Your task to perform on an android device: Open Youtube and go to the subscriptions tab Image 0: 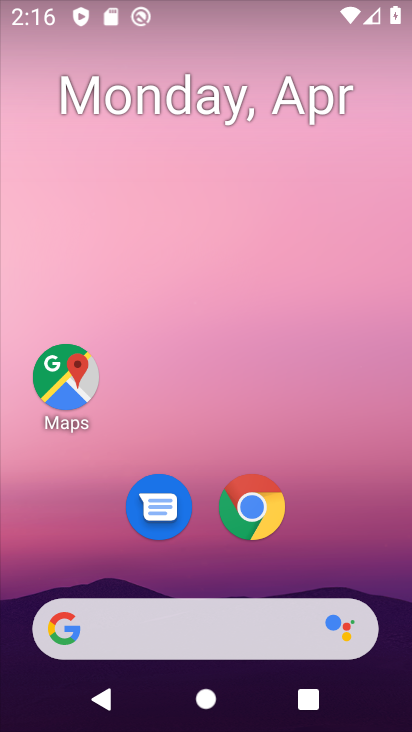
Step 0: drag from (391, 634) to (328, 120)
Your task to perform on an android device: Open Youtube and go to the subscriptions tab Image 1: 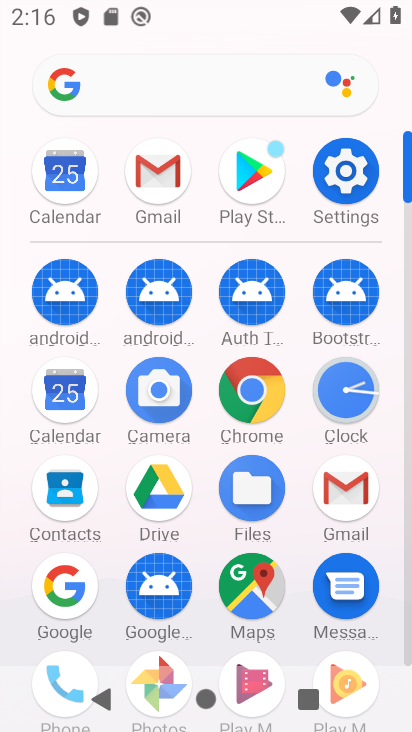
Step 1: click (407, 645)
Your task to perform on an android device: Open Youtube and go to the subscriptions tab Image 2: 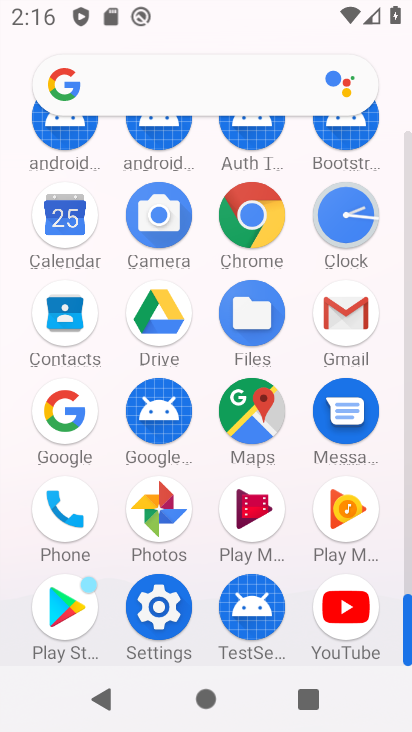
Step 2: click (348, 608)
Your task to perform on an android device: Open Youtube and go to the subscriptions tab Image 3: 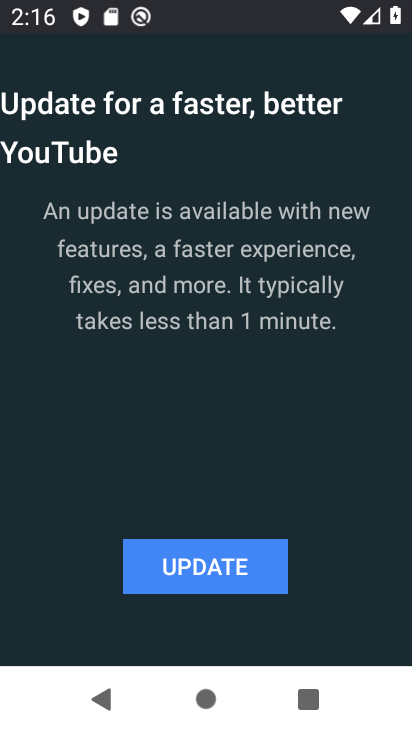
Step 3: click (201, 569)
Your task to perform on an android device: Open Youtube and go to the subscriptions tab Image 4: 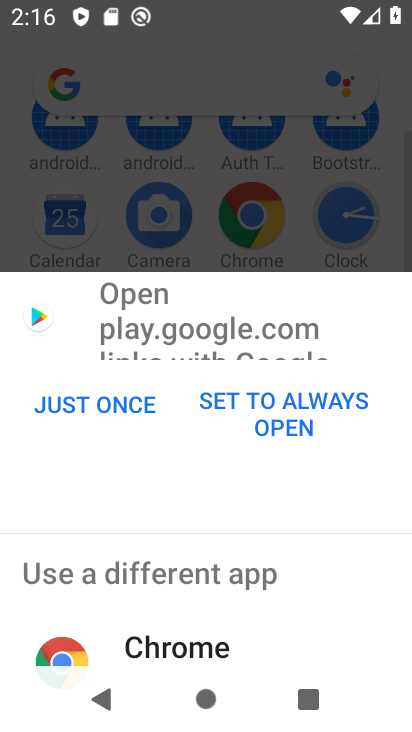
Step 4: click (76, 413)
Your task to perform on an android device: Open Youtube and go to the subscriptions tab Image 5: 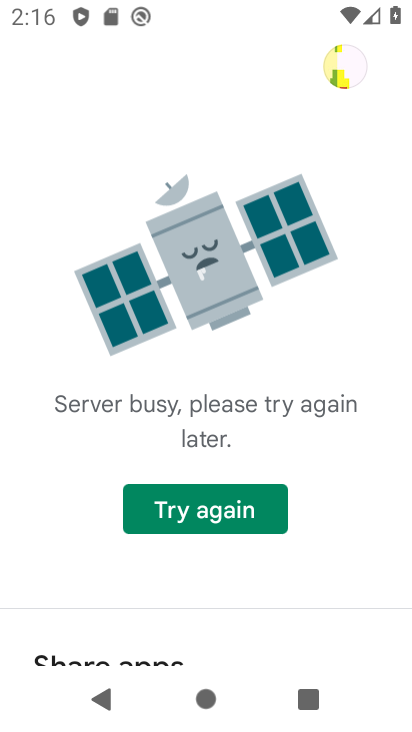
Step 5: task complete